Your task to perform on an android device: turn off notifications in google photos Image 0: 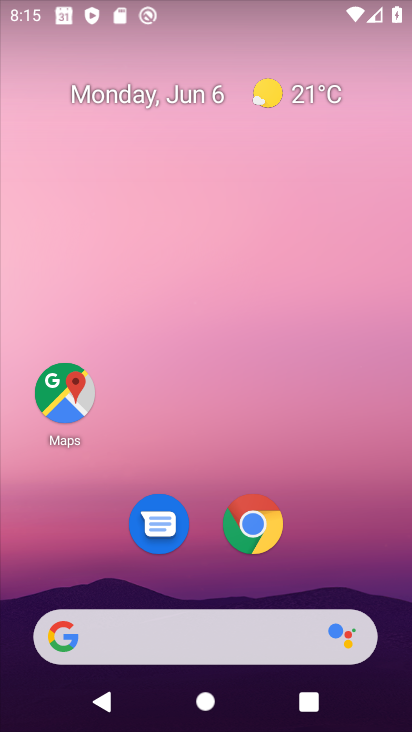
Step 0: drag from (198, 445) to (215, 11)
Your task to perform on an android device: turn off notifications in google photos Image 1: 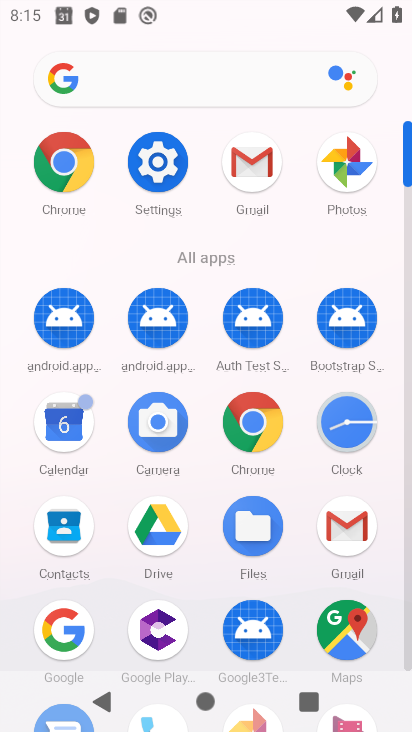
Step 1: click (343, 159)
Your task to perform on an android device: turn off notifications in google photos Image 2: 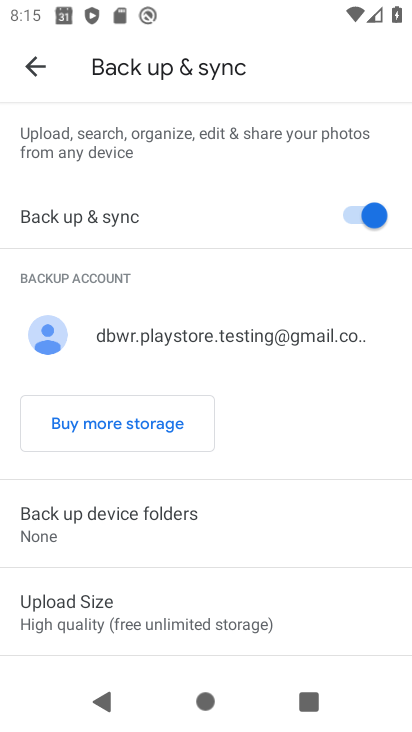
Step 2: click (35, 66)
Your task to perform on an android device: turn off notifications in google photos Image 3: 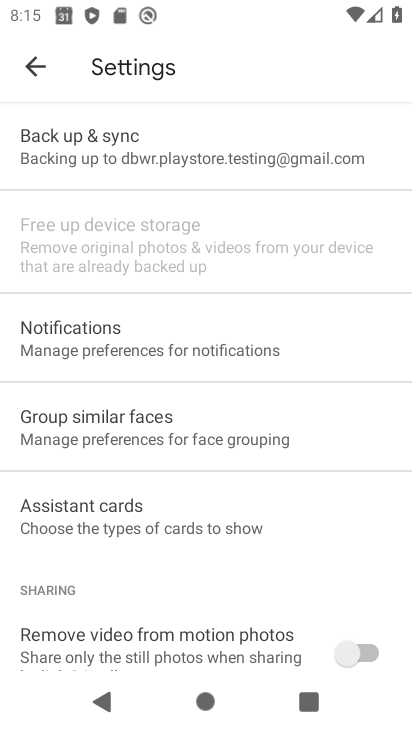
Step 3: click (130, 321)
Your task to perform on an android device: turn off notifications in google photos Image 4: 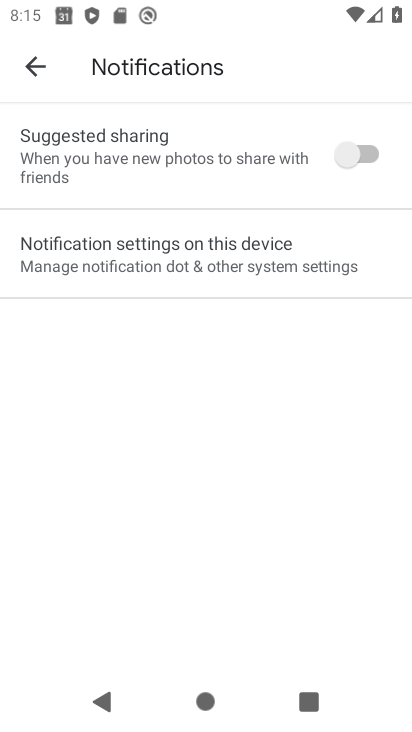
Step 4: click (175, 273)
Your task to perform on an android device: turn off notifications in google photos Image 5: 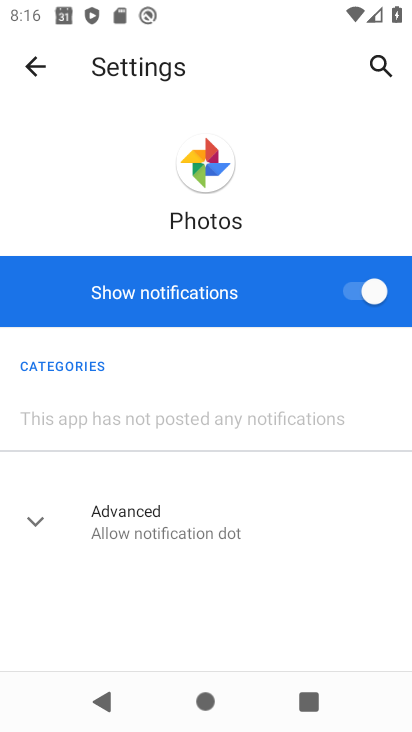
Step 5: click (357, 289)
Your task to perform on an android device: turn off notifications in google photos Image 6: 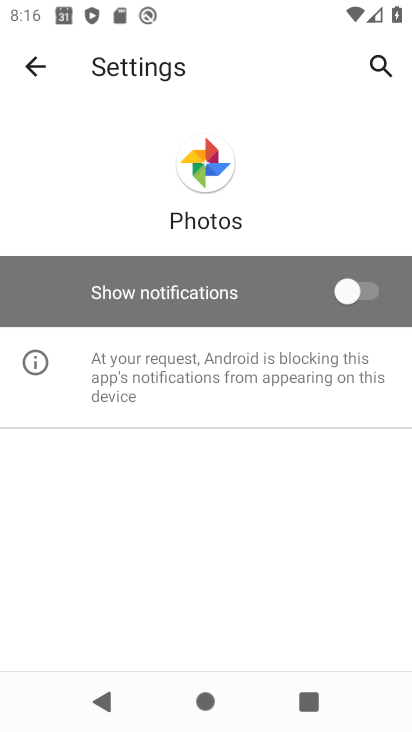
Step 6: task complete